Your task to perform on an android device: turn on showing notifications on the lock screen Image 0: 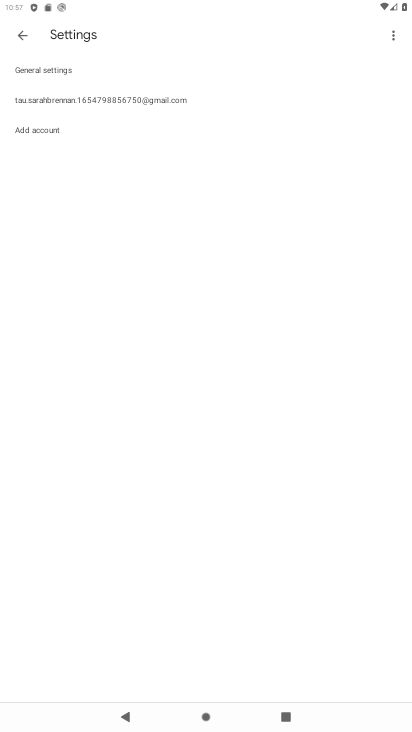
Step 0: press home button
Your task to perform on an android device: turn on showing notifications on the lock screen Image 1: 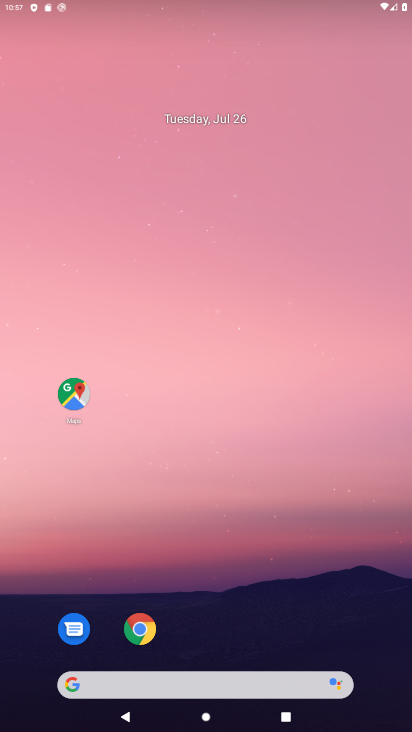
Step 1: drag from (327, 618) to (271, 92)
Your task to perform on an android device: turn on showing notifications on the lock screen Image 2: 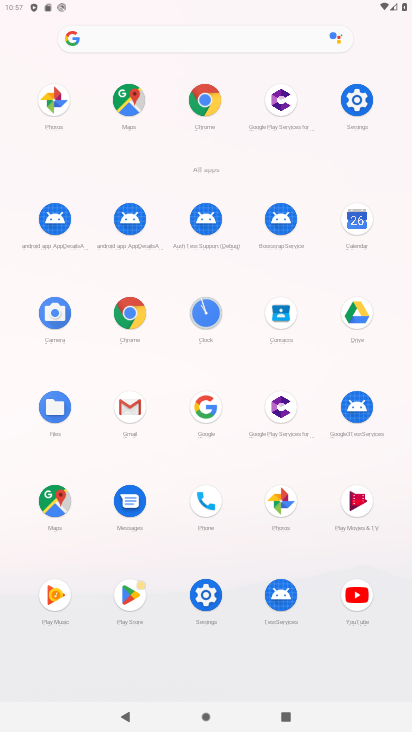
Step 2: click (206, 590)
Your task to perform on an android device: turn on showing notifications on the lock screen Image 3: 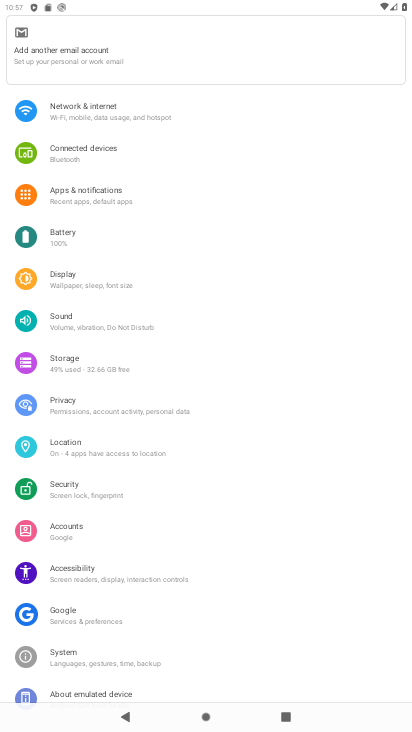
Step 3: click (96, 195)
Your task to perform on an android device: turn on showing notifications on the lock screen Image 4: 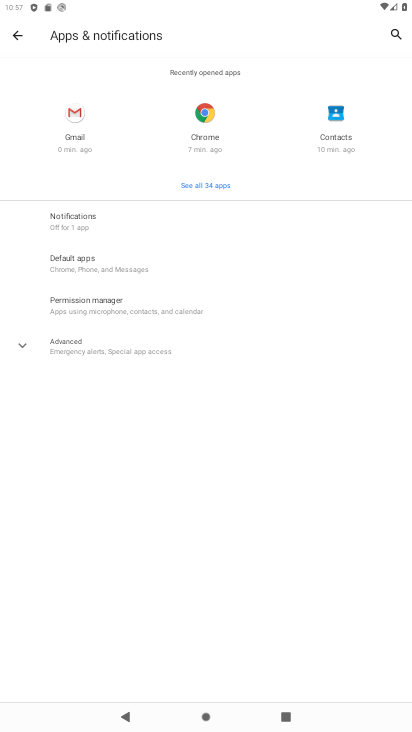
Step 4: click (75, 223)
Your task to perform on an android device: turn on showing notifications on the lock screen Image 5: 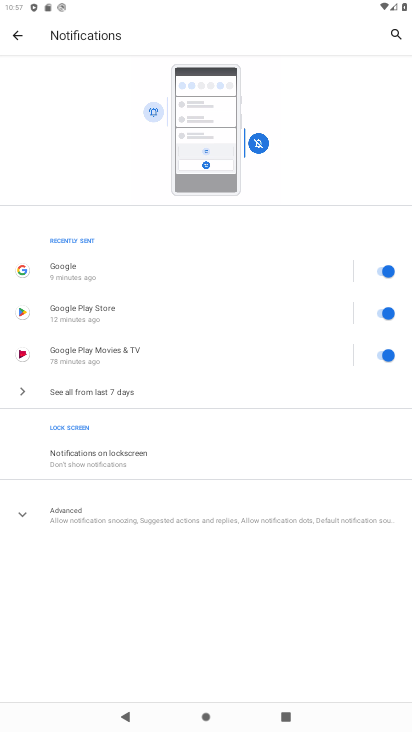
Step 5: click (105, 448)
Your task to perform on an android device: turn on showing notifications on the lock screen Image 6: 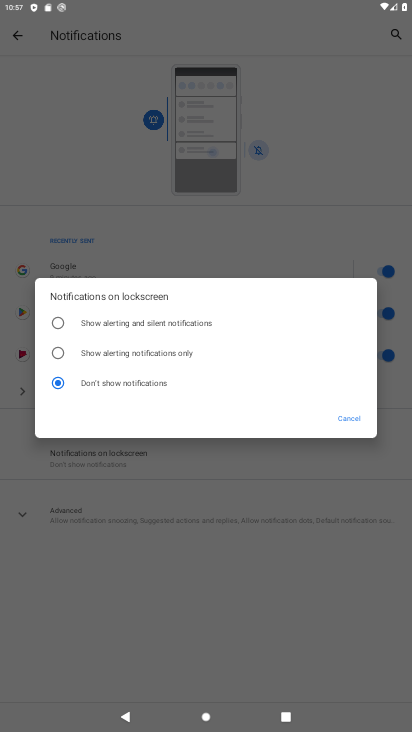
Step 6: click (107, 327)
Your task to perform on an android device: turn on showing notifications on the lock screen Image 7: 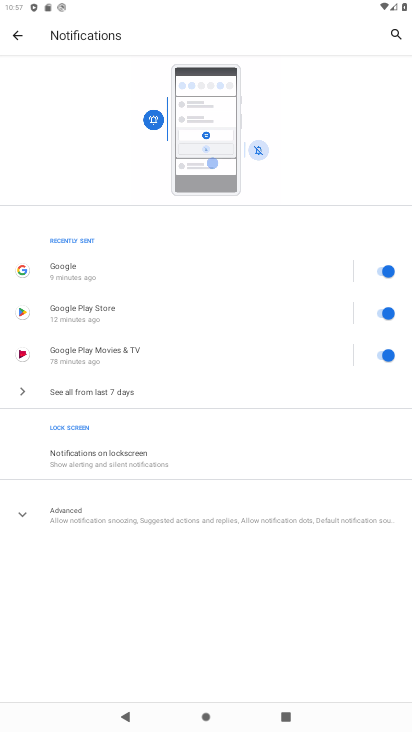
Step 7: task complete